Your task to perform on an android device: change the clock display to analog Image 0: 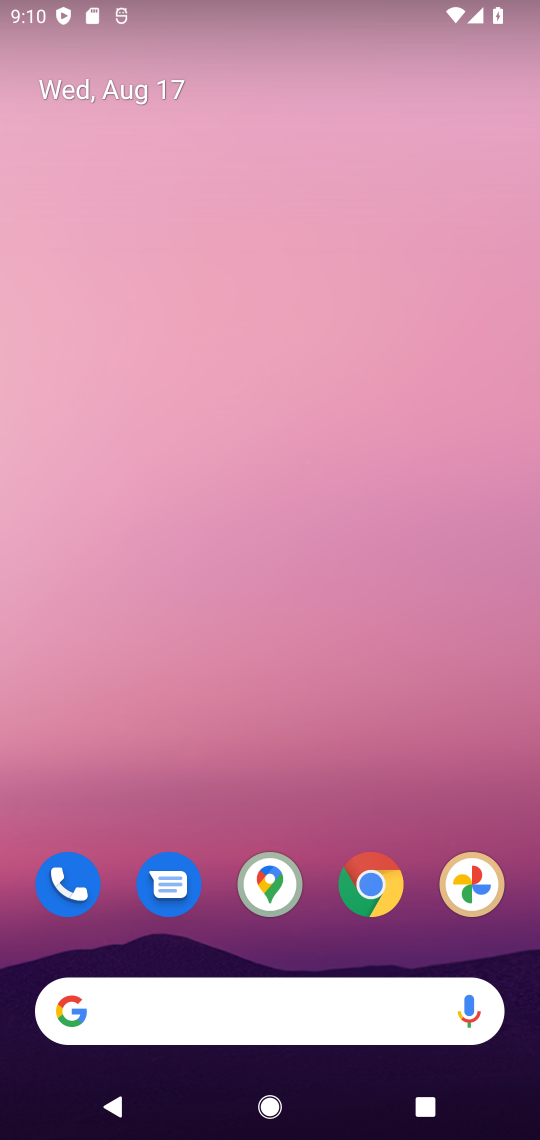
Step 0: drag from (229, 818) to (195, 240)
Your task to perform on an android device: change the clock display to analog Image 1: 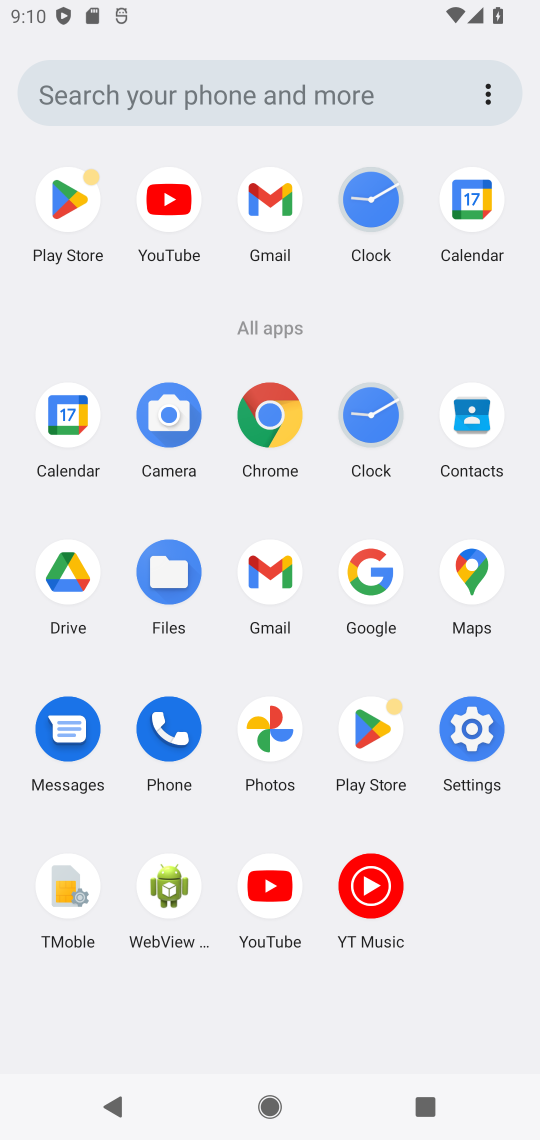
Step 1: click (362, 214)
Your task to perform on an android device: change the clock display to analog Image 2: 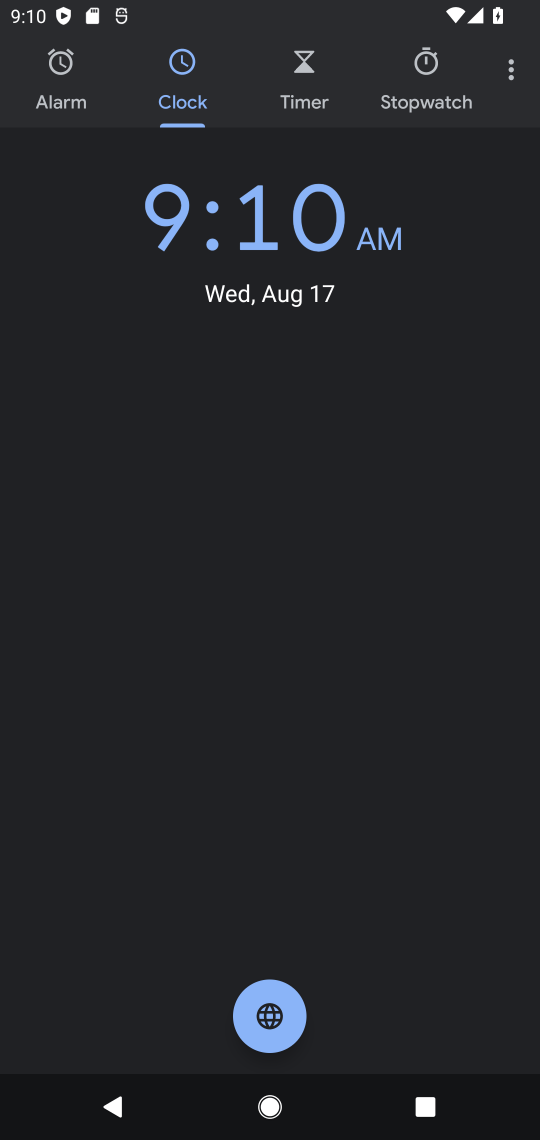
Step 2: click (503, 80)
Your task to perform on an android device: change the clock display to analog Image 3: 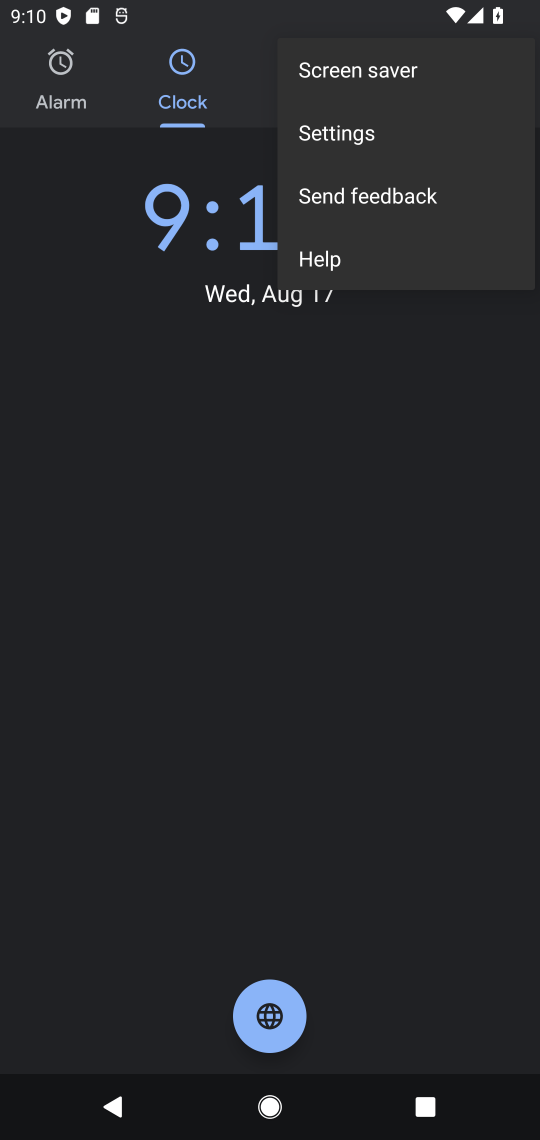
Step 3: click (366, 147)
Your task to perform on an android device: change the clock display to analog Image 4: 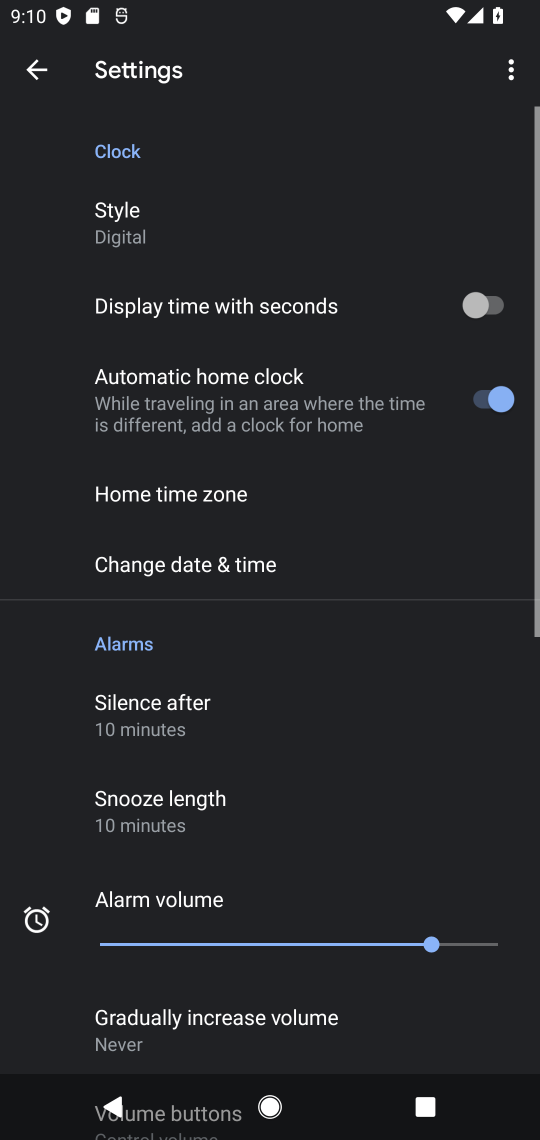
Step 4: click (169, 214)
Your task to perform on an android device: change the clock display to analog Image 5: 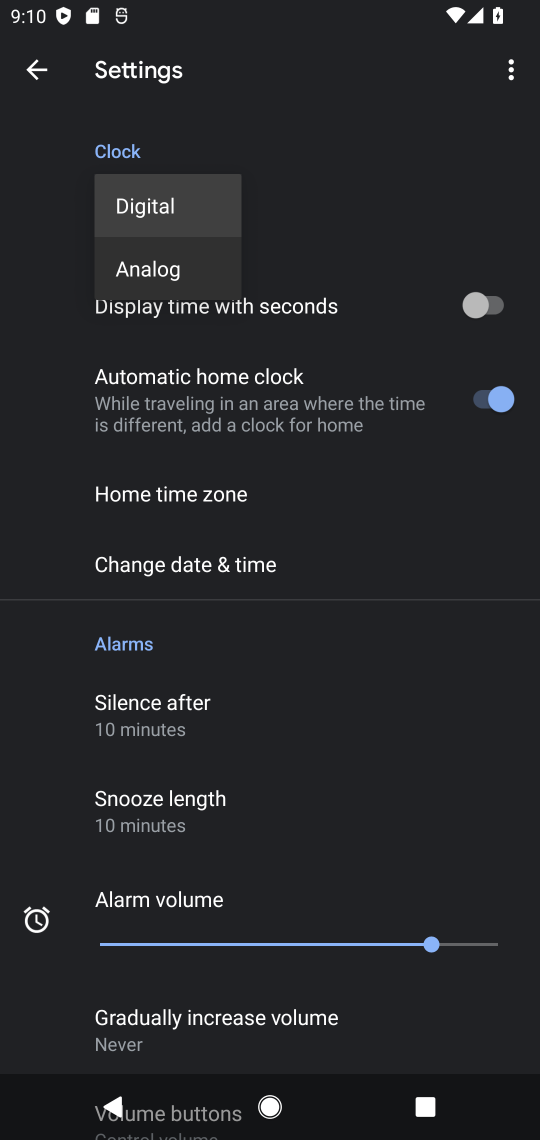
Step 5: click (139, 281)
Your task to perform on an android device: change the clock display to analog Image 6: 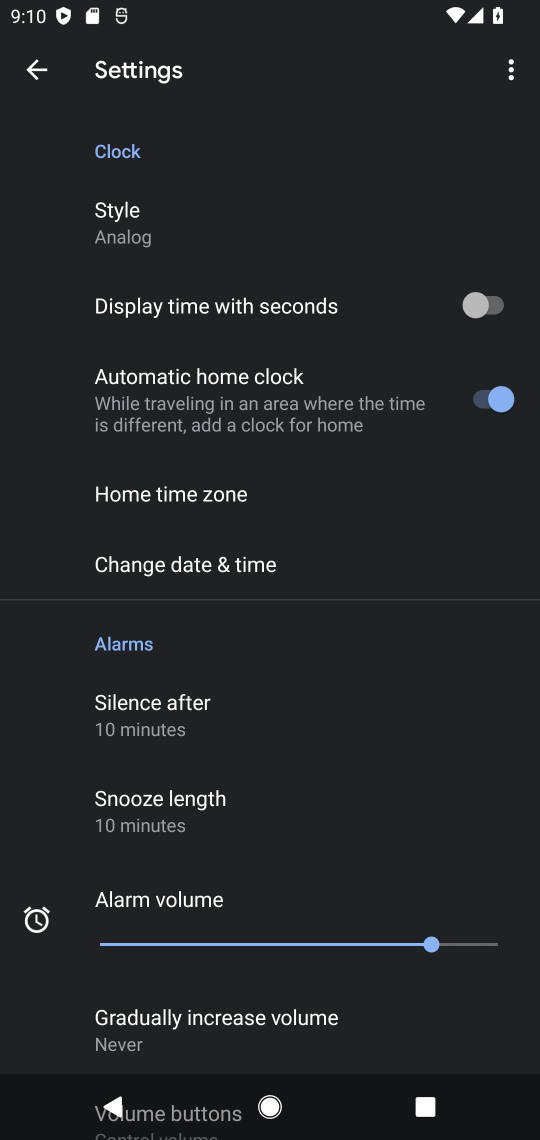
Step 6: task complete